Your task to perform on an android device: Empty the shopping cart on newegg. Image 0: 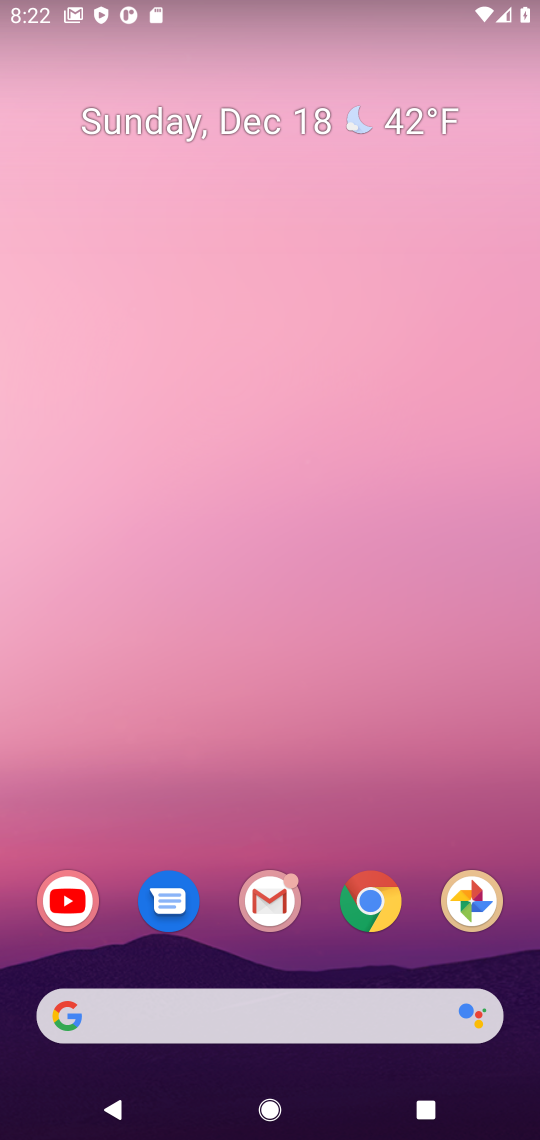
Step 0: click (344, 923)
Your task to perform on an android device: Empty the shopping cart on newegg. Image 1: 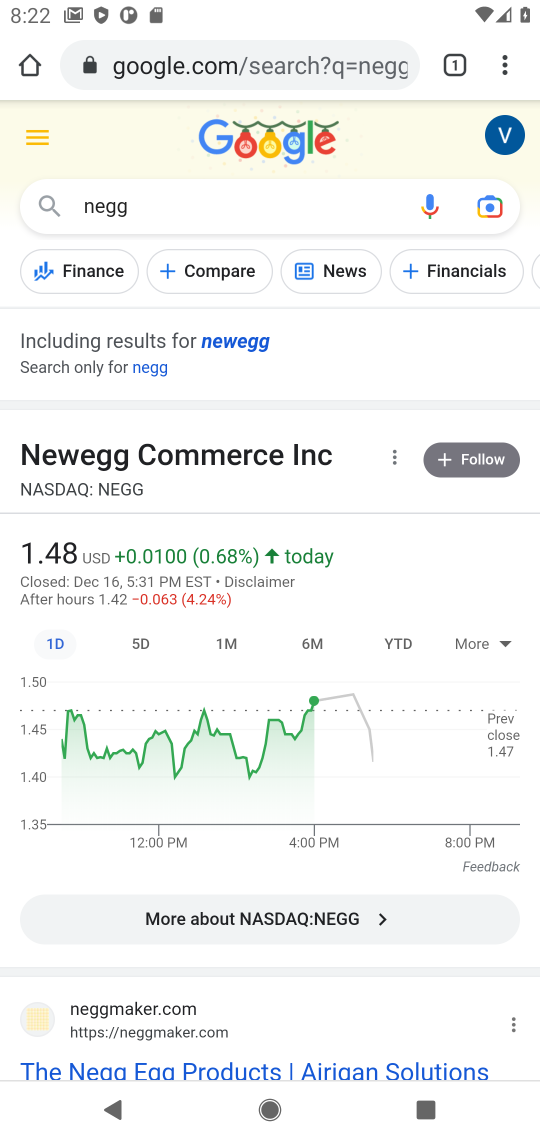
Step 1: click (170, 212)
Your task to perform on an android device: Empty the shopping cart on newegg. Image 2: 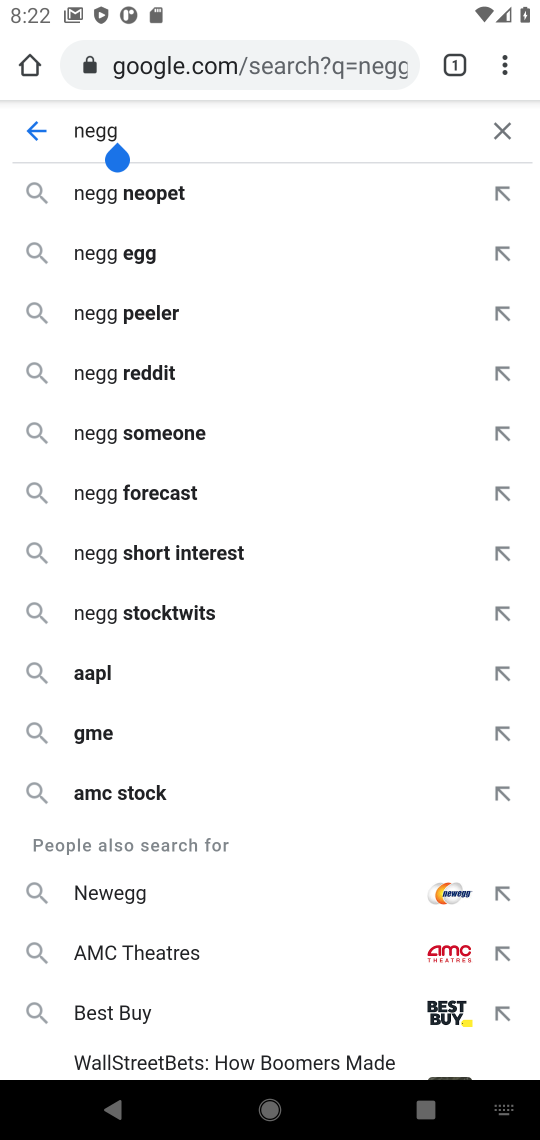
Step 2: click (515, 134)
Your task to perform on an android device: Empty the shopping cart on newegg. Image 3: 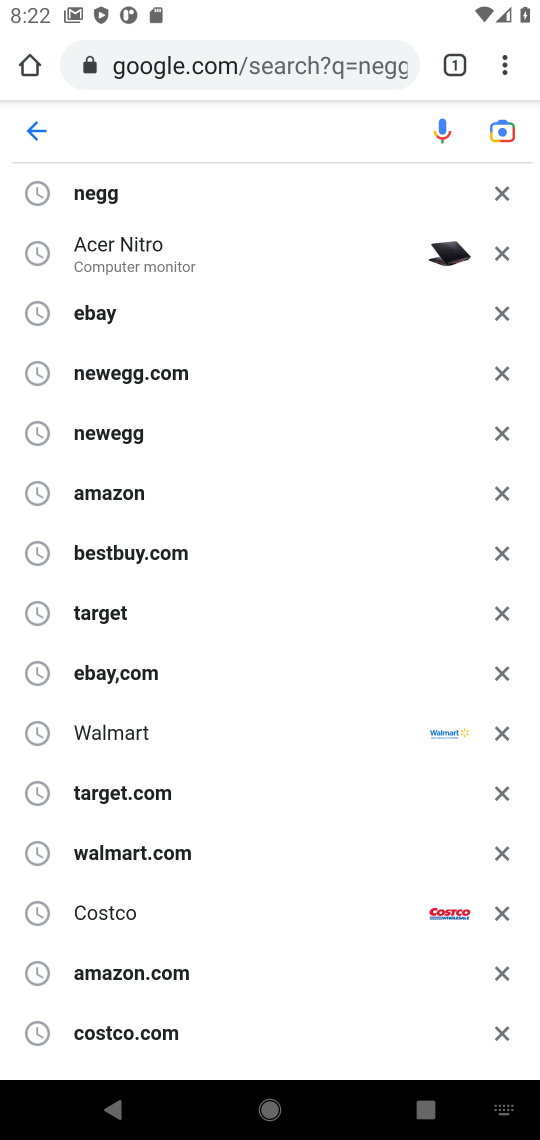
Step 3: type "newegg"
Your task to perform on an android device: Empty the shopping cart on newegg. Image 4: 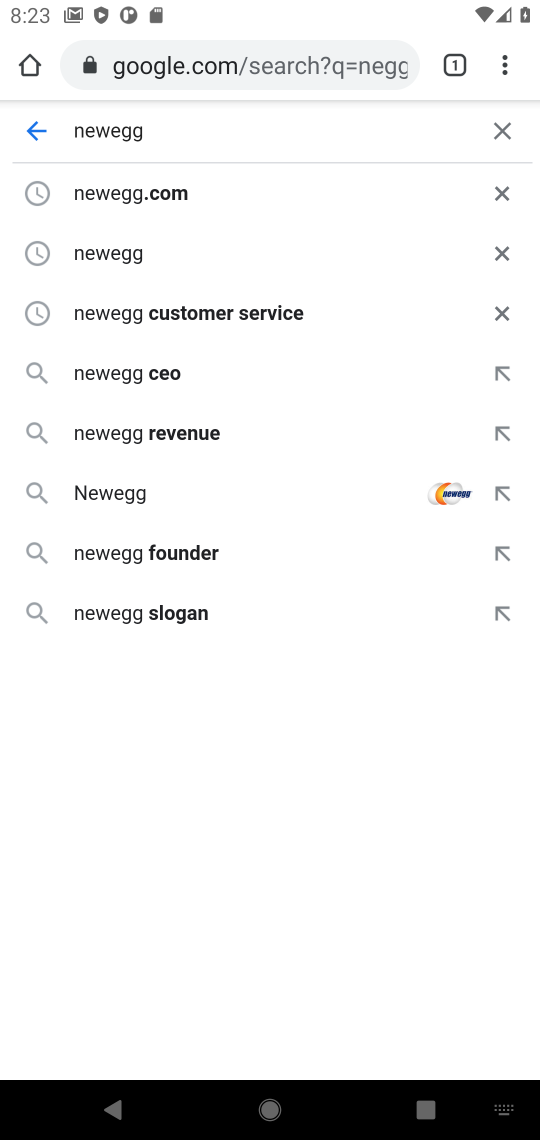
Step 4: click (128, 212)
Your task to perform on an android device: Empty the shopping cart on newegg. Image 5: 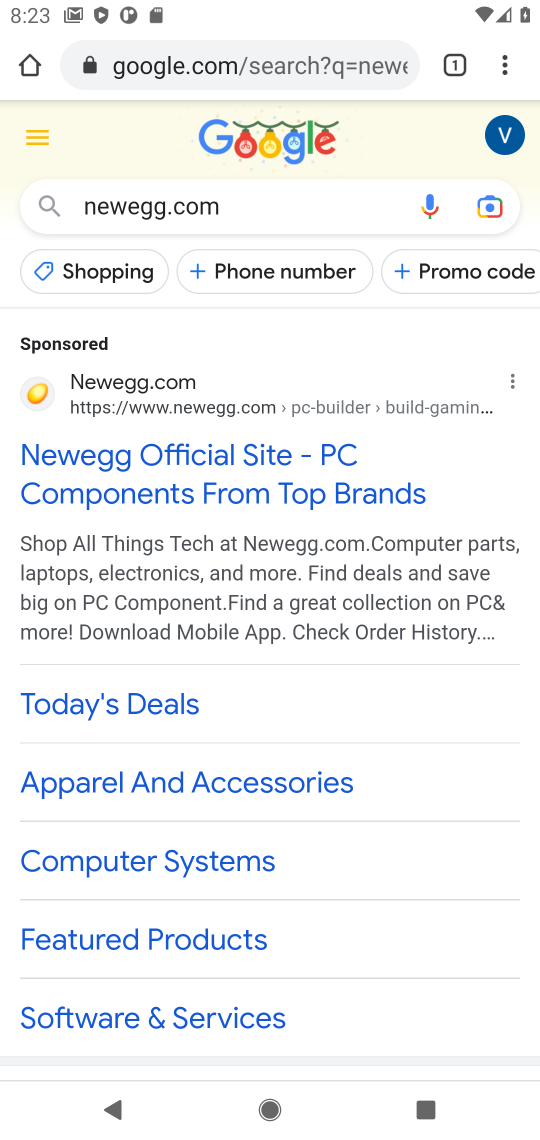
Step 5: click (104, 507)
Your task to perform on an android device: Empty the shopping cart on newegg. Image 6: 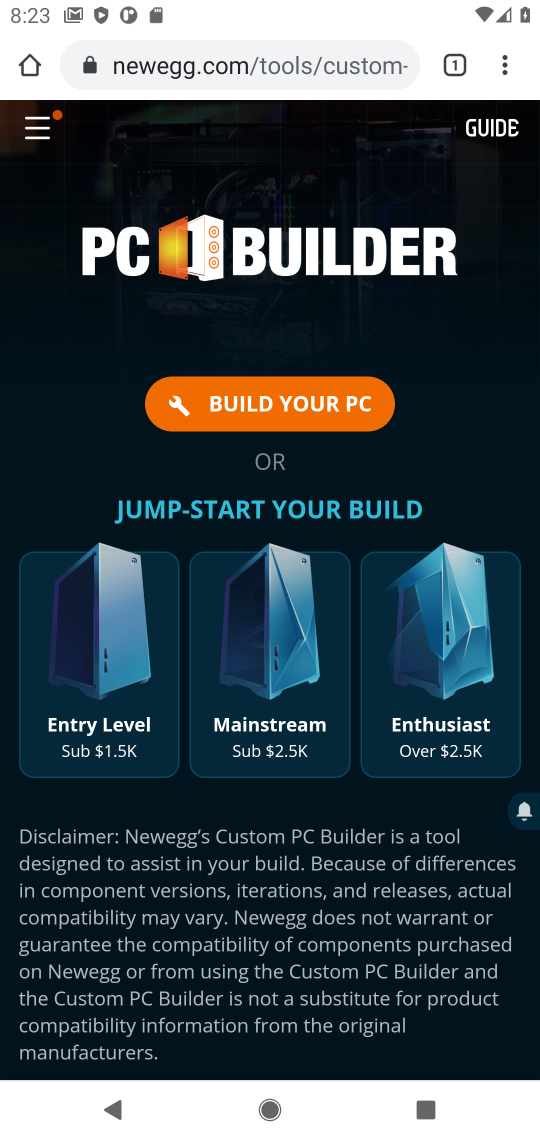
Step 6: task complete